Your task to perform on an android device: Show the shopping cart on costco. Add "usb-a" to the cart on costco, then select checkout. Image 0: 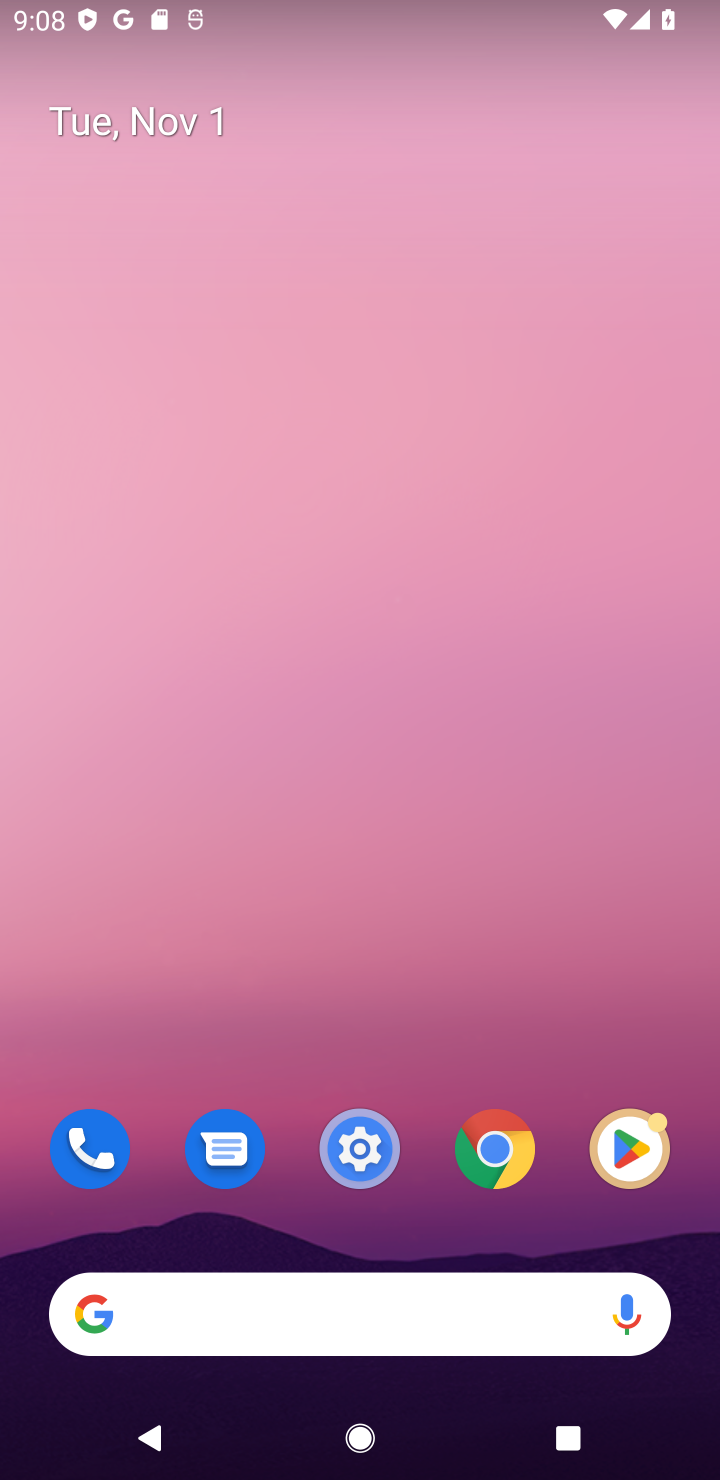
Step 0: press home button
Your task to perform on an android device: Show the shopping cart on costco. Add "usb-a" to the cart on costco, then select checkout. Image 1: 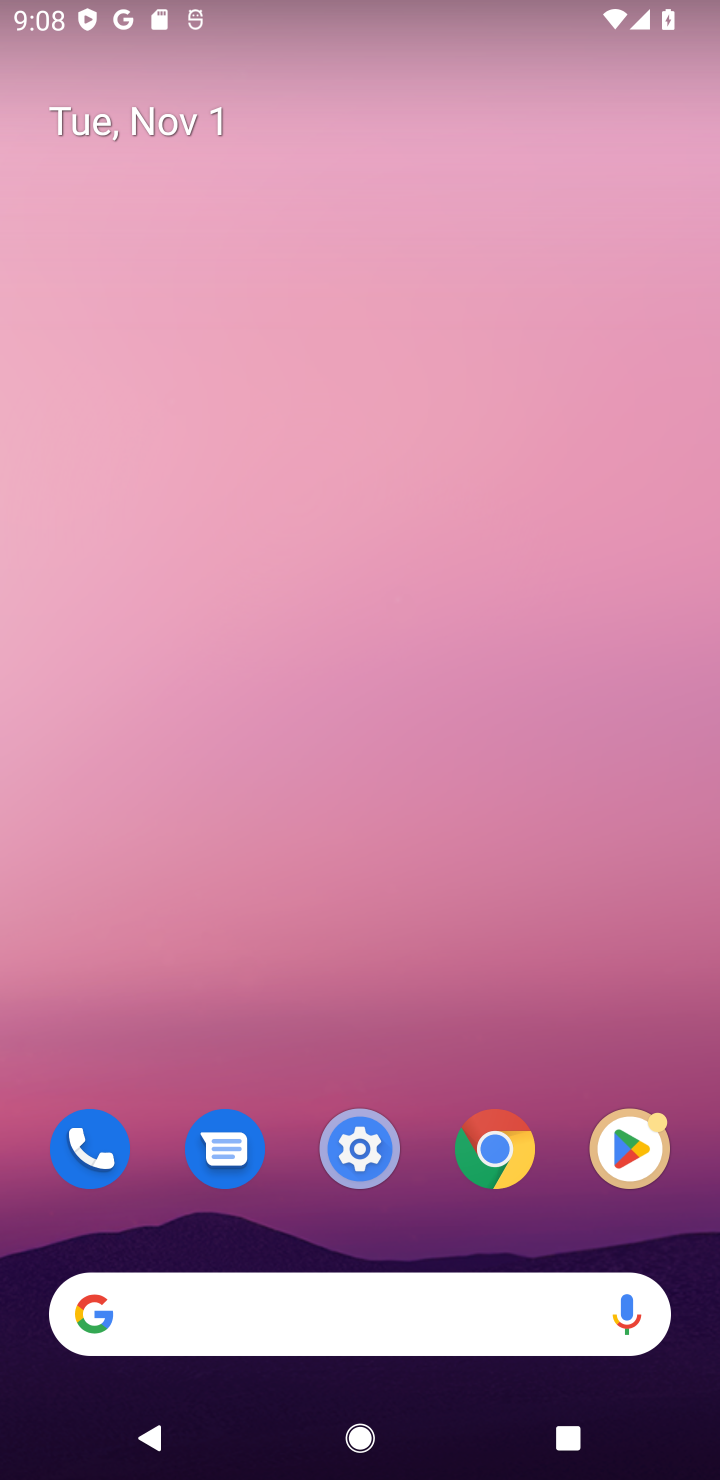
Step 1: click (140, 1304)
Your task to perform on an android device: Show the shopping cart on costco. Add "usb-a" to the cart on costco, then select checkout. Image 2: 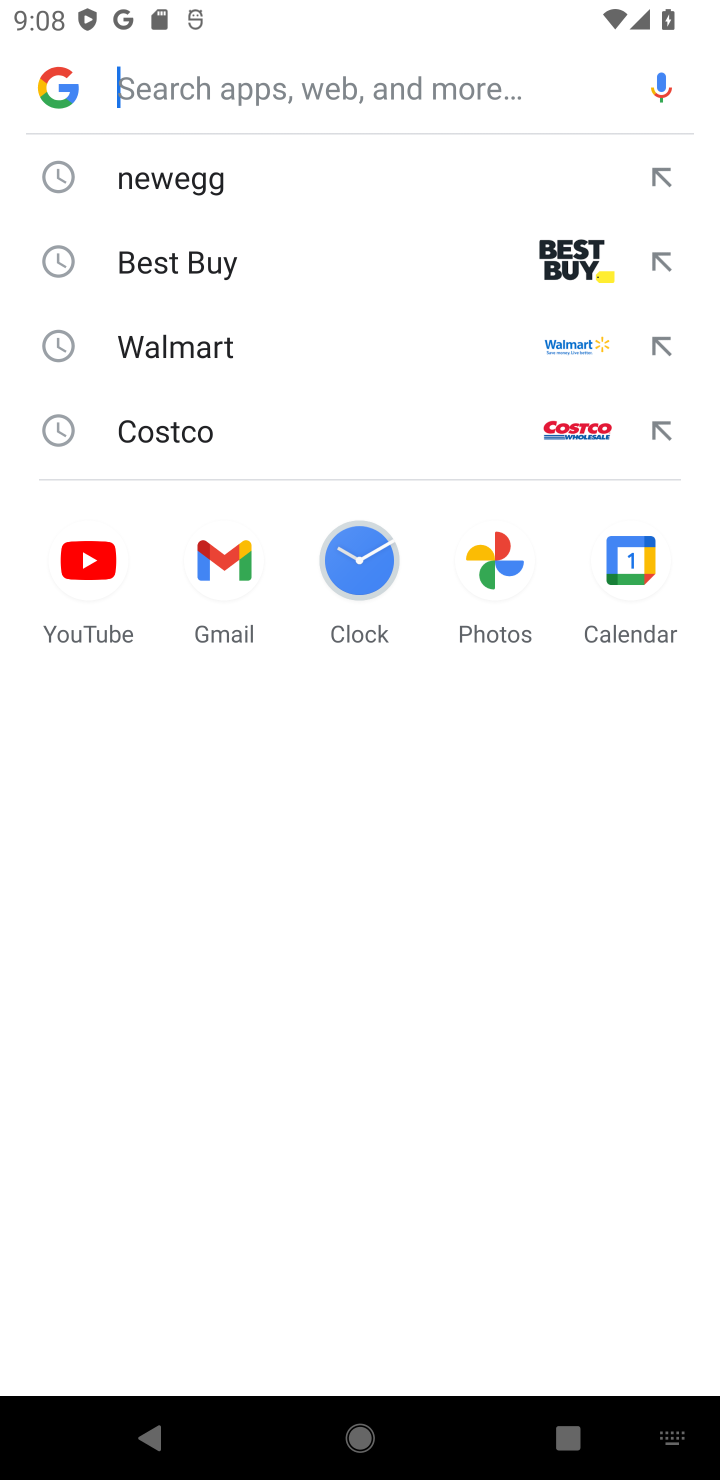
Step 2: type "costco"
Your task to perform on an android device: Show the shopping cart on costco. Add "usb-a" to the cart on costco, then select checkout. Image 3: 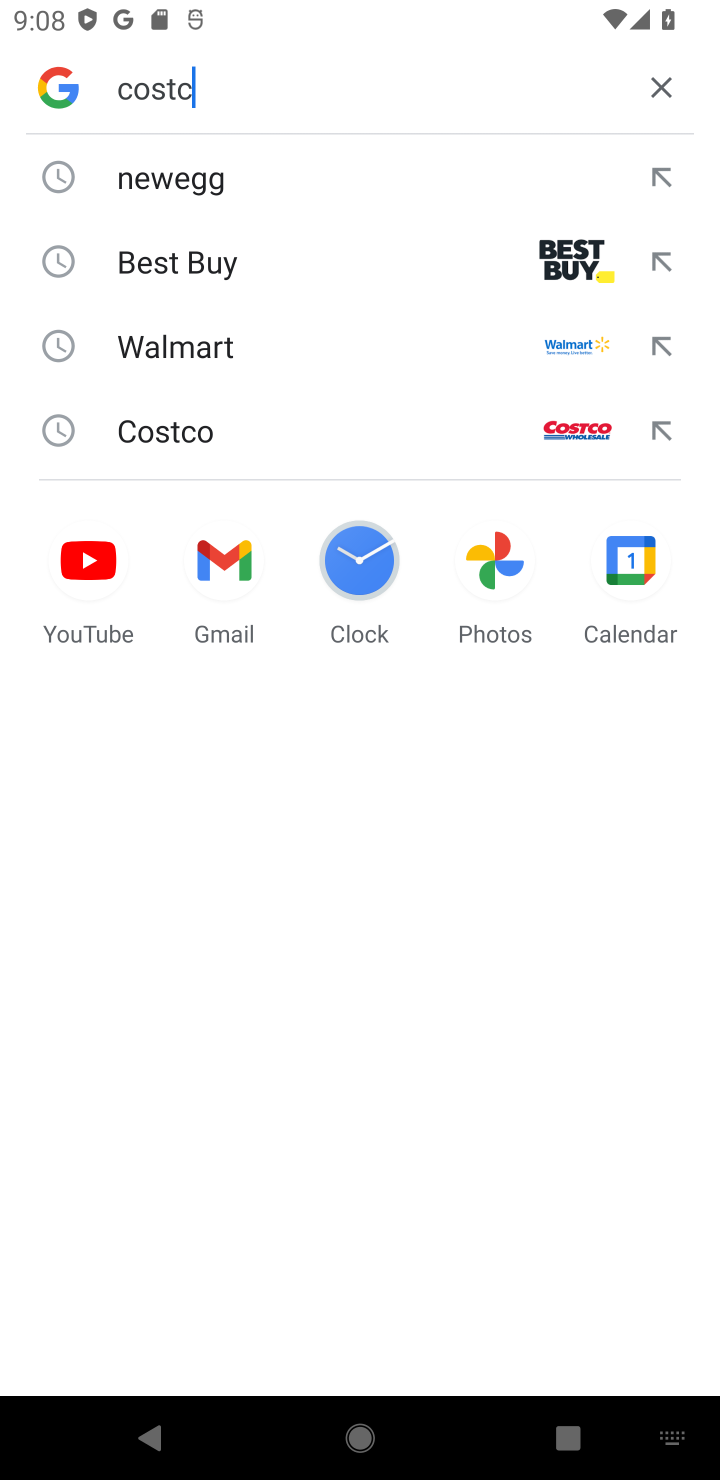
Step 3: press enter
Your task to perform on an android device: Show the shopping cart on costco. Add "usb-a" to the cart on costco, then select checkout. Image 4: 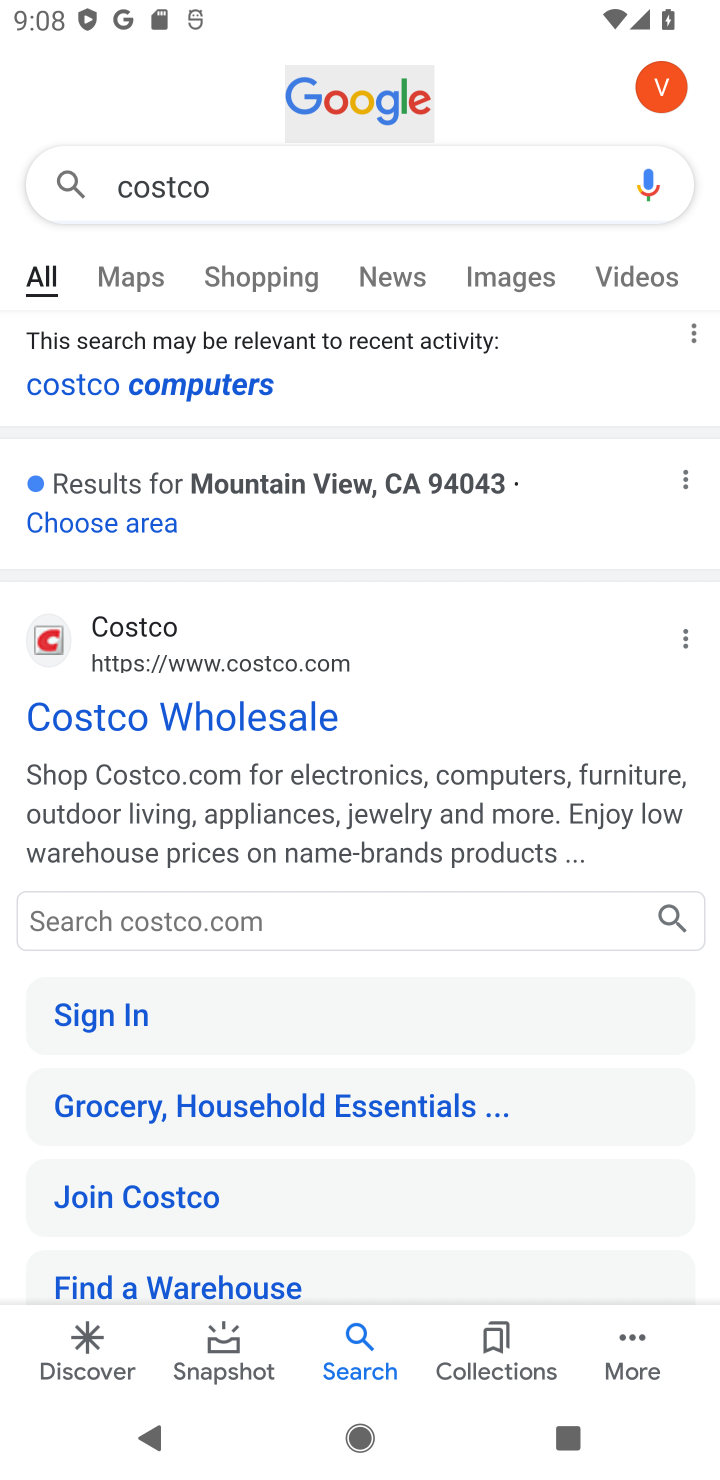
Step 4: press enter
Your task to perform on an android device: Show the shopping cart on costco. Add "usb-a" to the cart on costco, then select checkout. Image 5: 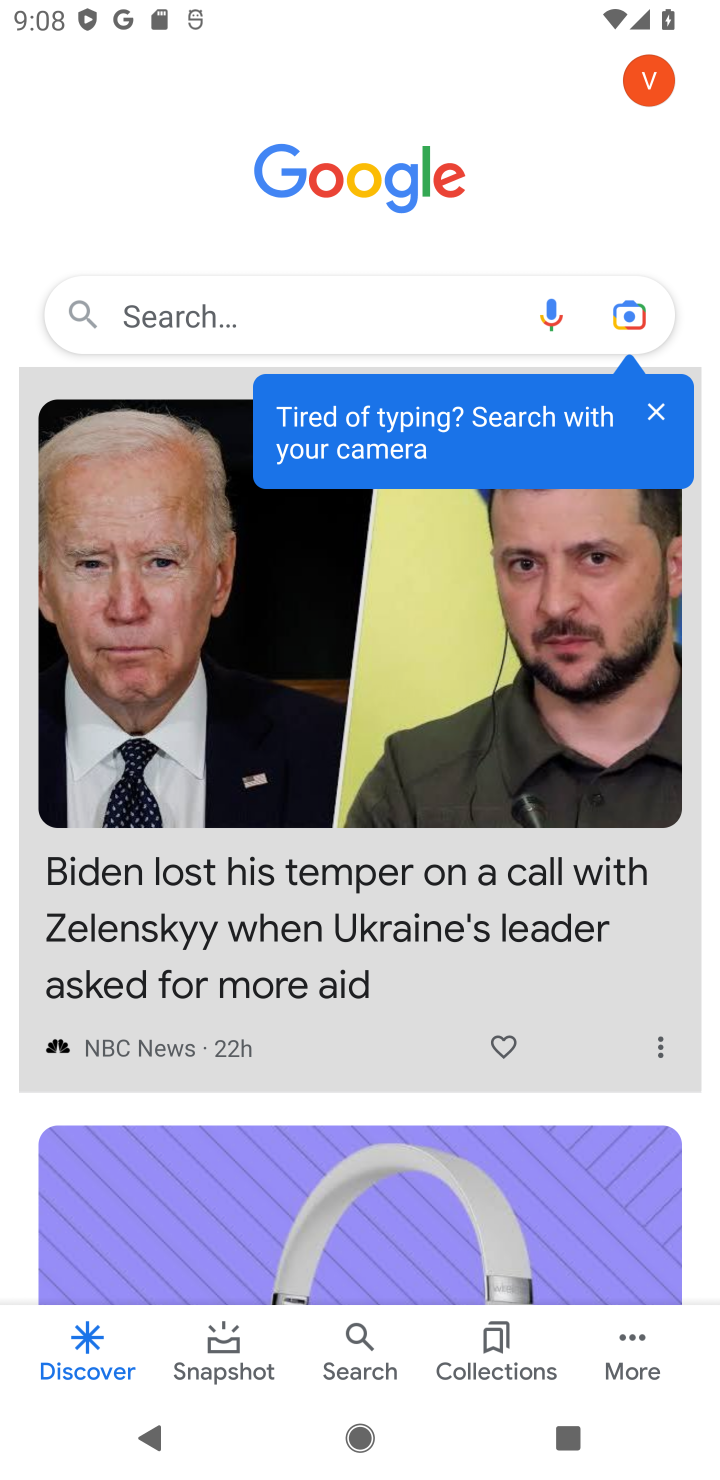
Step 5: click (135, 315)
Your task to perform on an android device: Show the shopping cart on costco. Add "usb-a" to the cart on costco, then select checkout. Image 6: 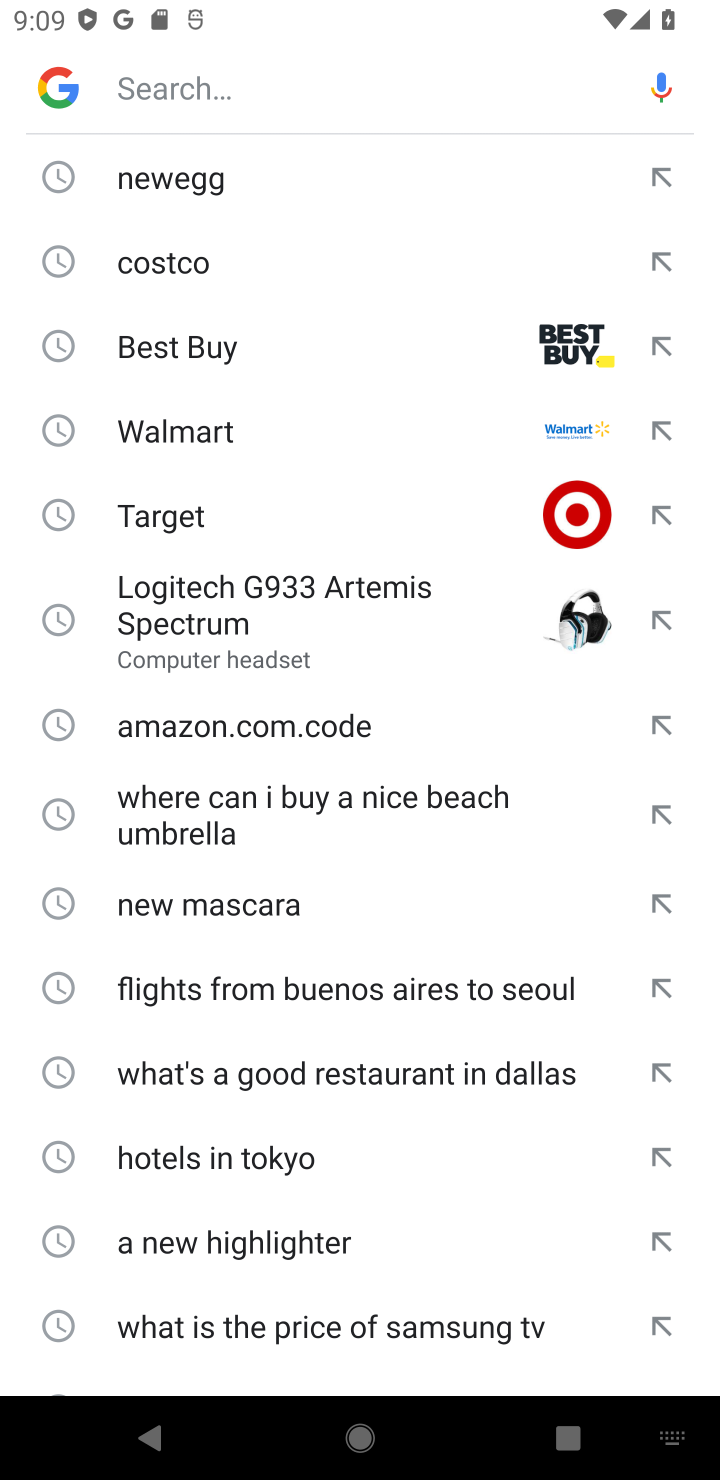
Step 6: click (187, 266)
Your task to perform on an android device: Show the shopping cart on costco. Add "usb-a" to the cart on costco, then select checkout. Image 7: 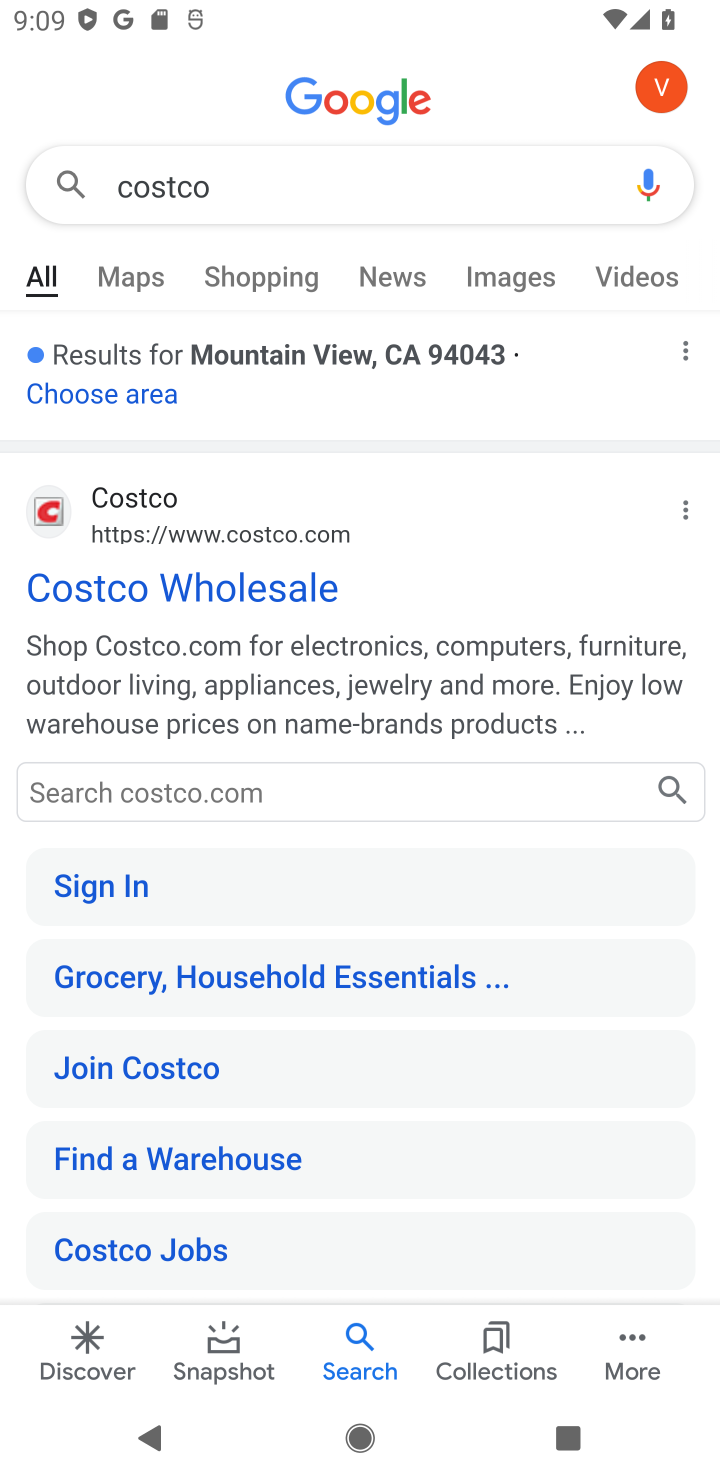
Step 7: click (120, 592)
Your task to perform on an android device: Show the shopping cart on costco. Add "usb-a" to the cart on costco, then select checkout. Image 8: 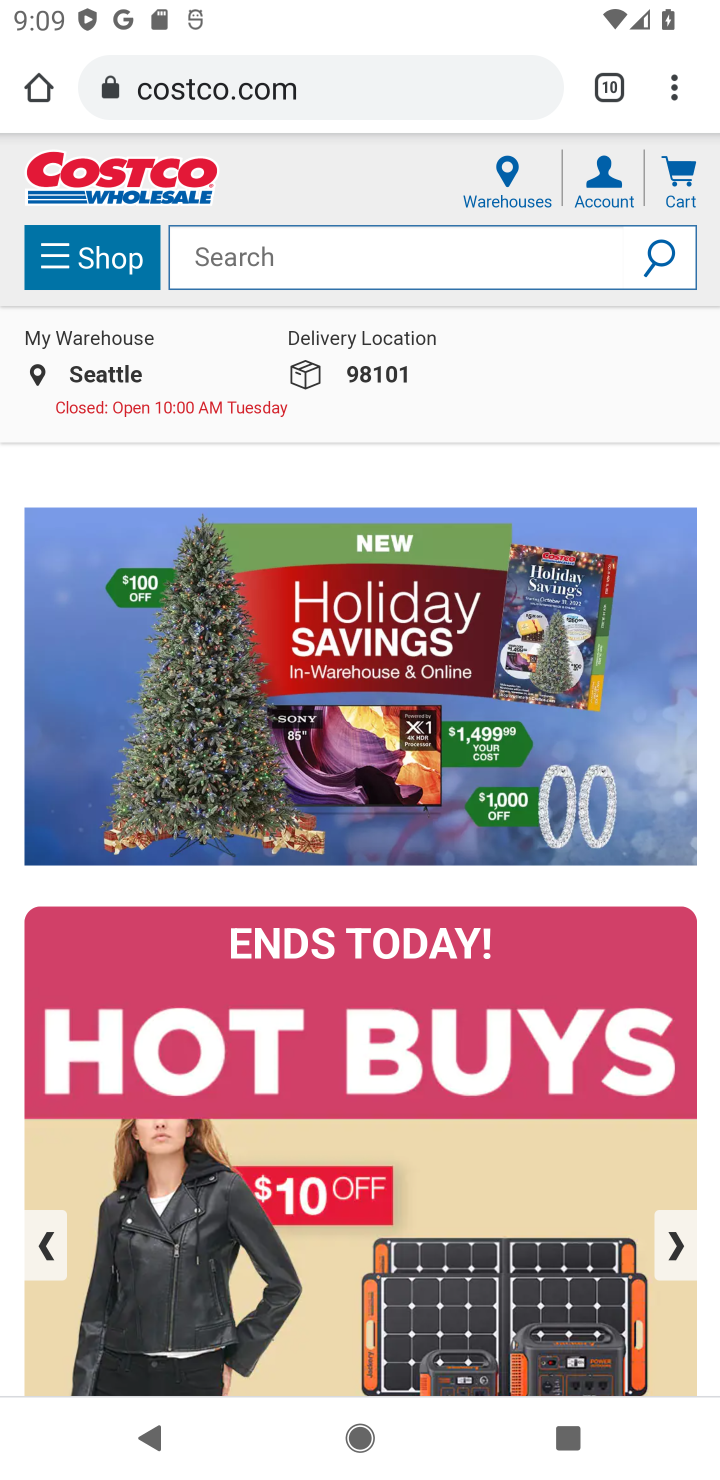
Step 8: click (241, 259)
Your task to perform on an android device: Show the shopping cart on costco. Add "usb-a" to the cart on costco, then select checkout. Image 9: 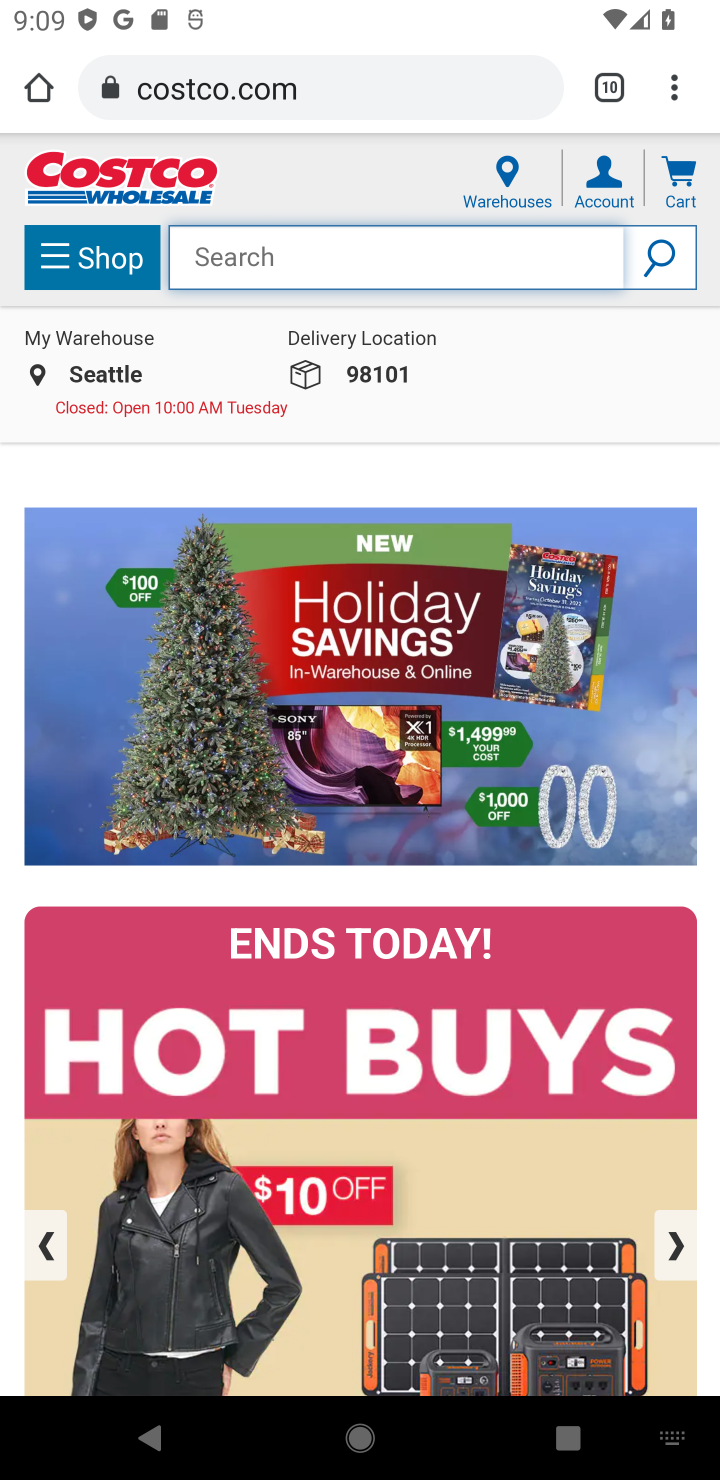
Step 9: click (673, 182)
Your task to perform on an android device: Show the shopping cart on costco. Add "usb-a" to the cart on costco, then select checkout. Image 10: 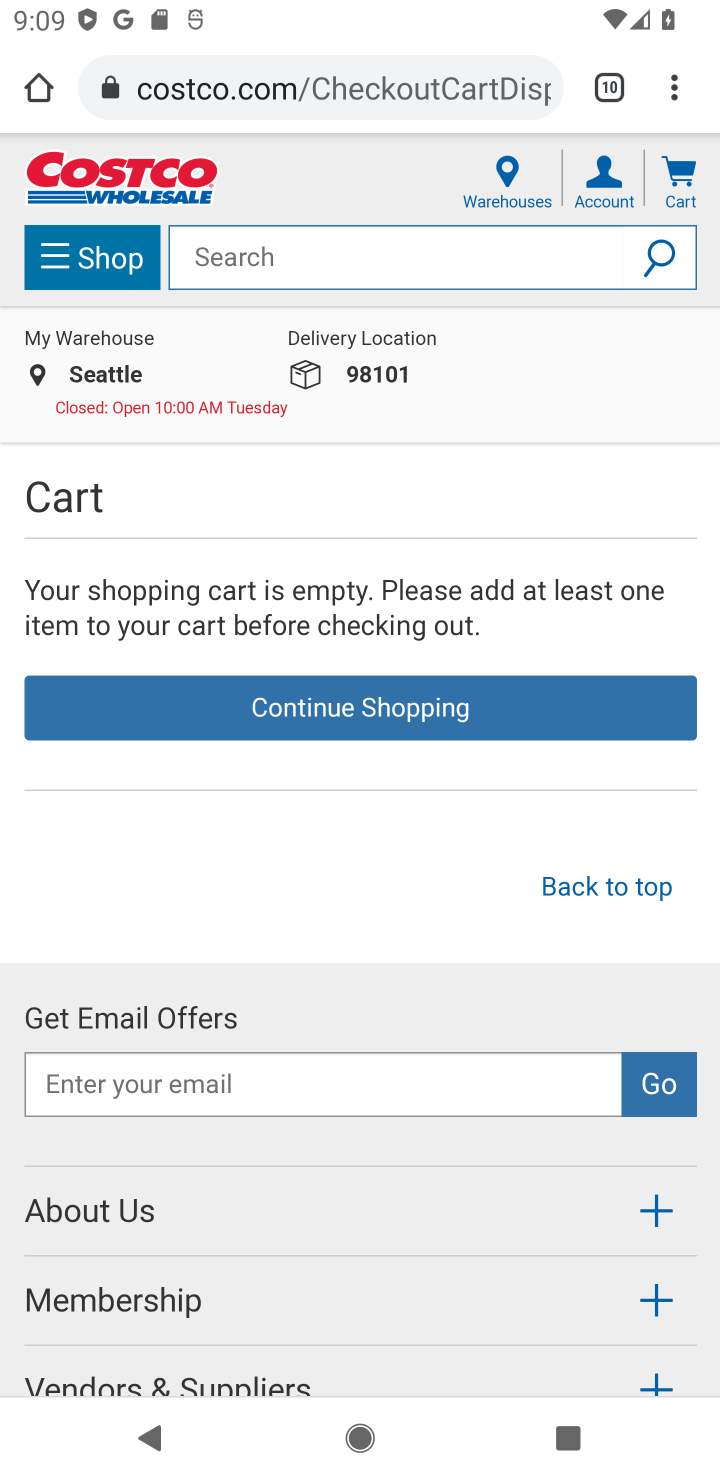
Step 10: click (314, 256)
Your task to perform on an android device: Show the shopping cart on costco. Add "usb-a" to the cart on costco, then select checkout. Image 11: 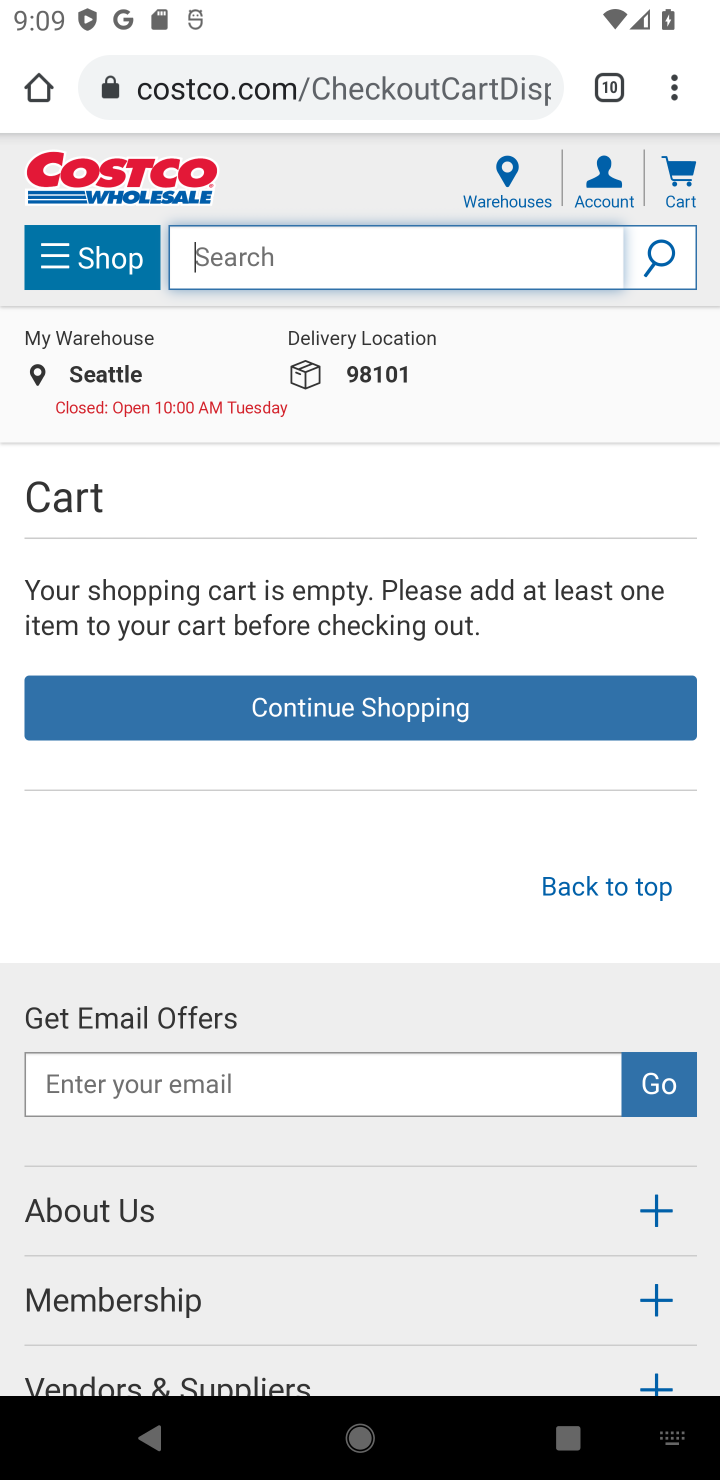
Step 11: type "usb a"
Your task to perform on an android device: Show the shopping cart on costco. Add "usb-a" to the cart on costco, then select checkout. Image 12: 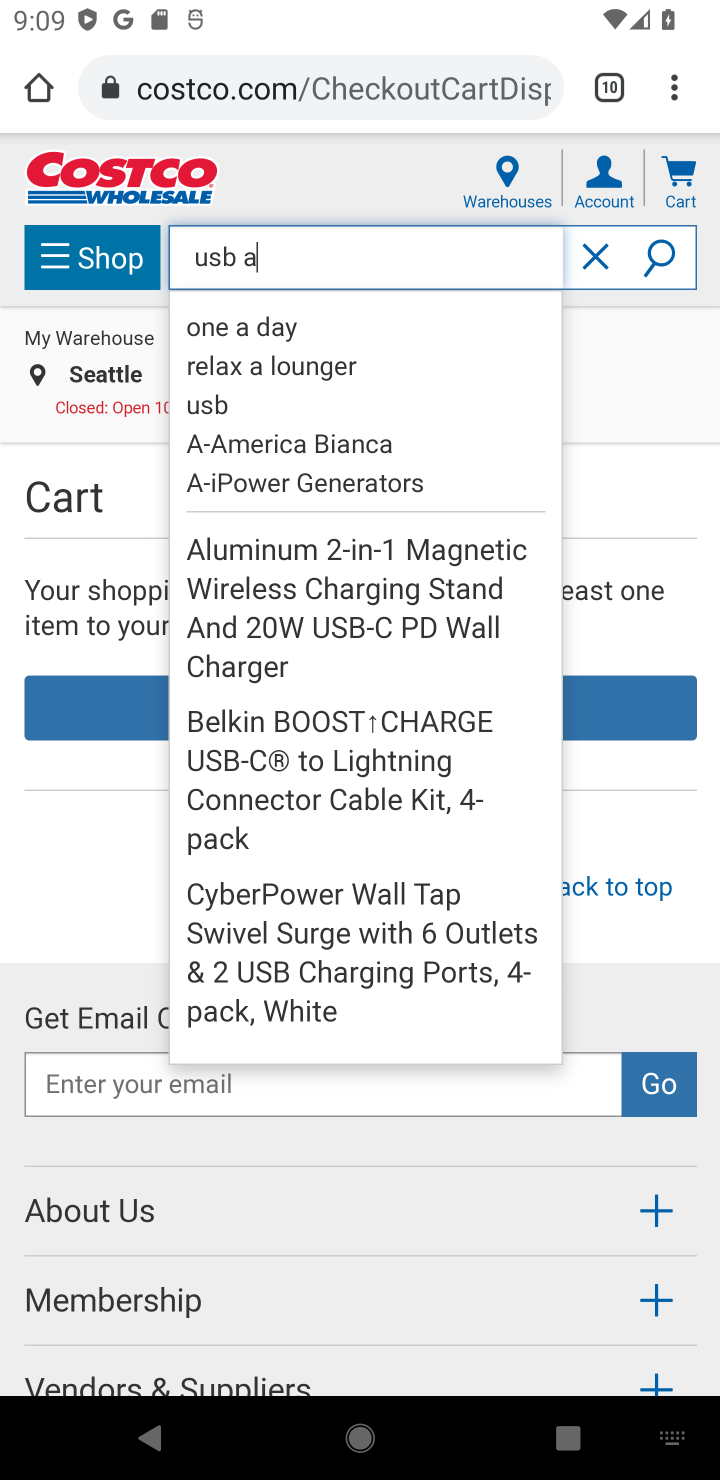
Step 12: click (664, 229)
Your task to perform on an android device: Show the shopping cart on costco. Add "usb-a" to the cart on costco, then select checkout. Image 13: 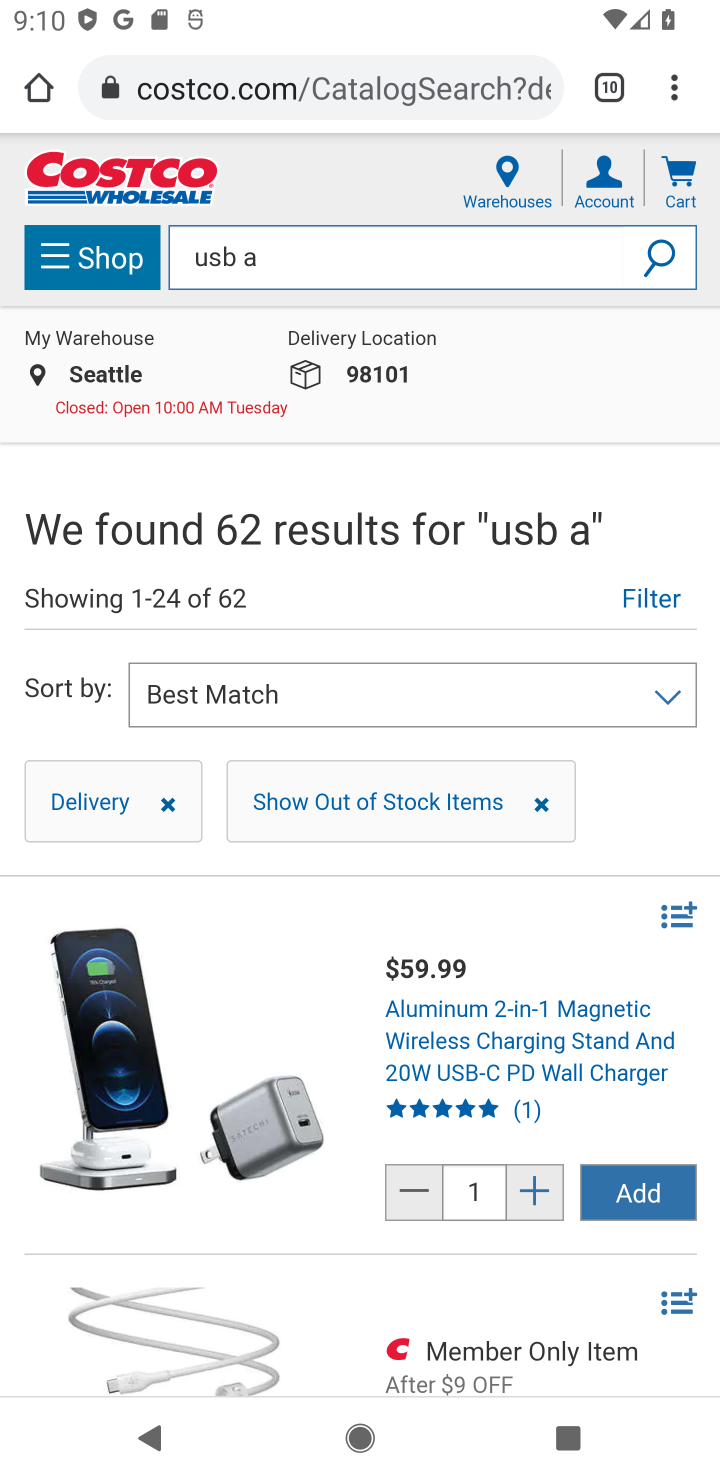
Step 13: task complete